Your task to perform on an android device: check data usage Image 0: 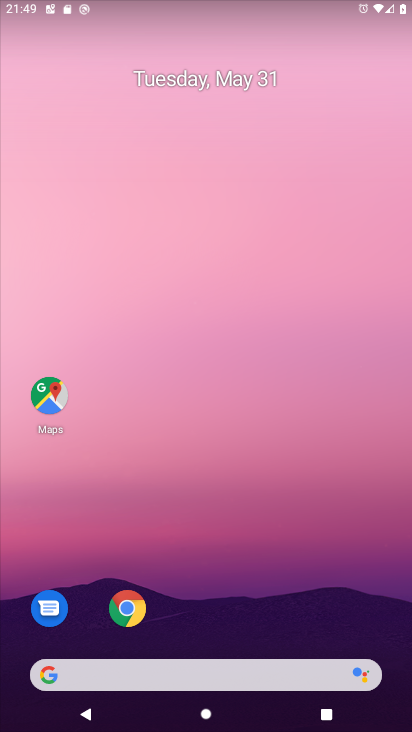
Step 0: drag from (263, 610) to (198, 117)
Your task to perform on an android device: check data usage Image 1: 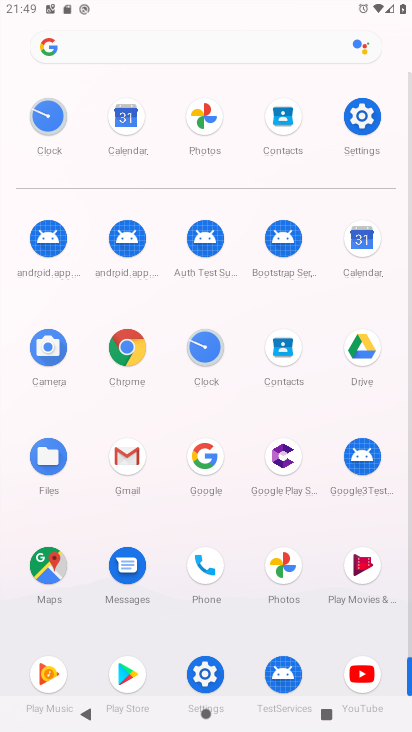
Step 1: click (361, 116)
Your task to perform on an android device: check data usage Image 2: 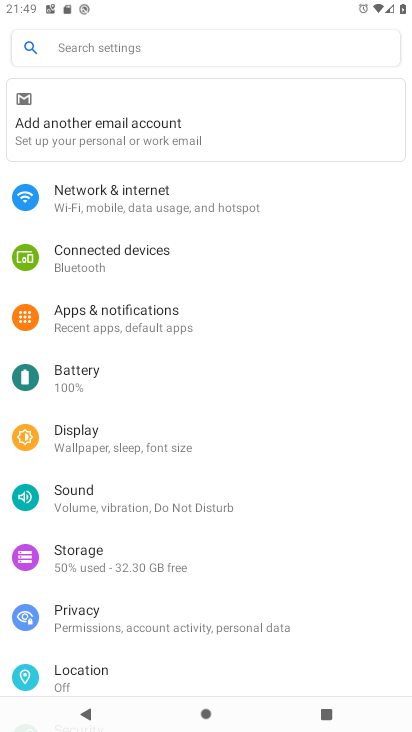
Step 2: click (144, 204)
Your task to perform on an android device: check data usage Image 3: 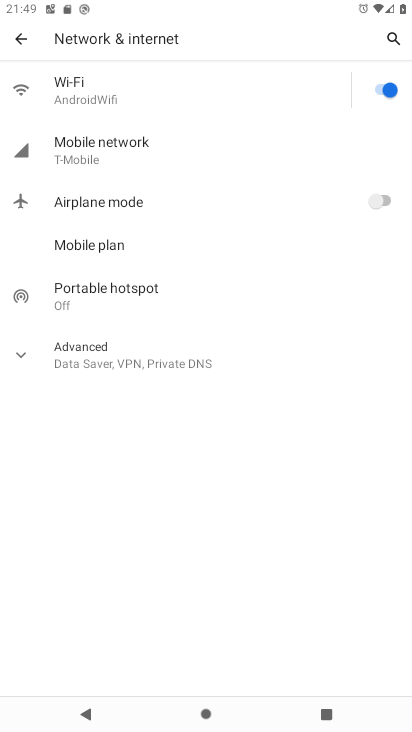
Step 3: click (113, 147)
Your task to perform on an android device: check data usage Image 4: 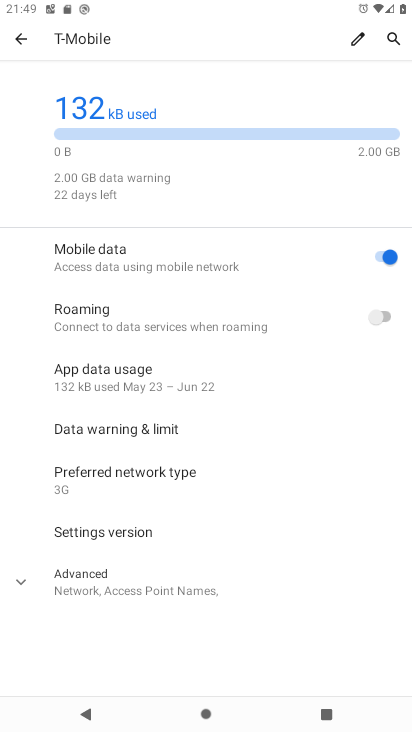
Step 4: task complete